Your task to perform on an android device: Go to eBay Image 0: 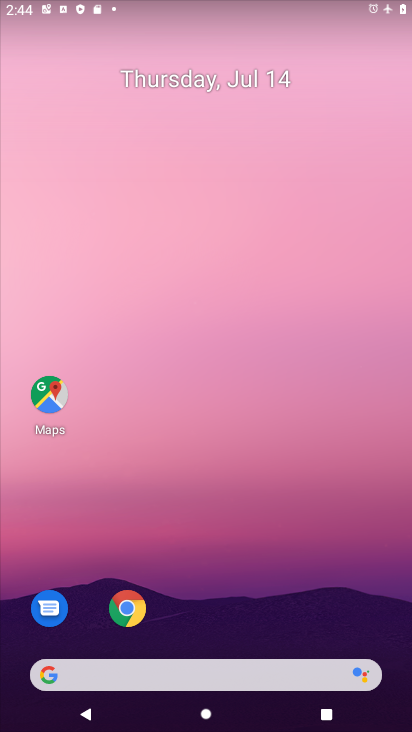
Step 0: click (127, 609)
Your task to perform on an android device: Go to eBay Image 1: 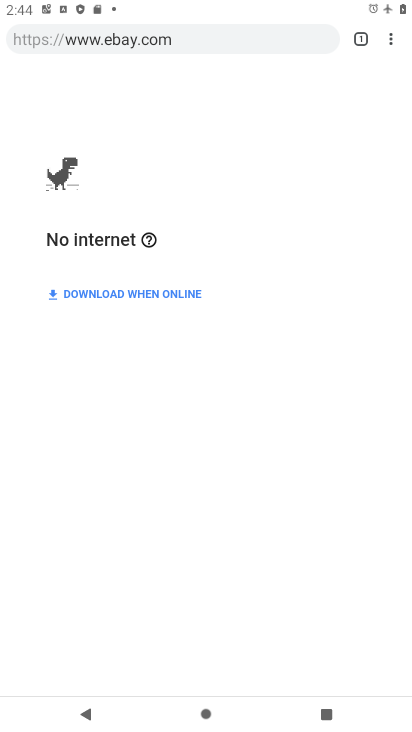
Step 1: task complete